Your task to perform on an android device: check storage Image 0: 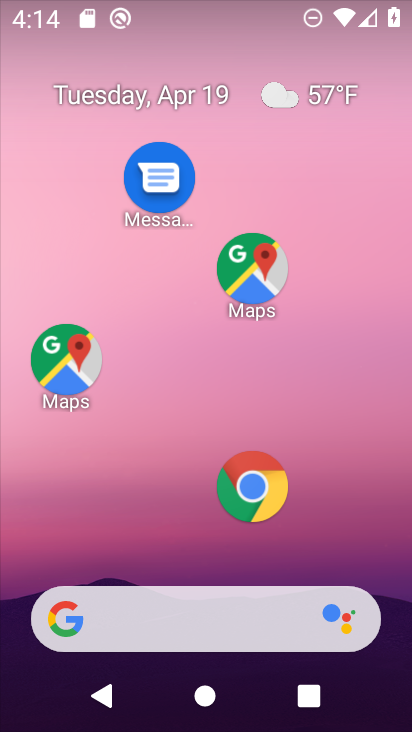
Step 0: drag from (300, 551) to (370, 135)
Your task to perform on an android device: check storage Image 1: 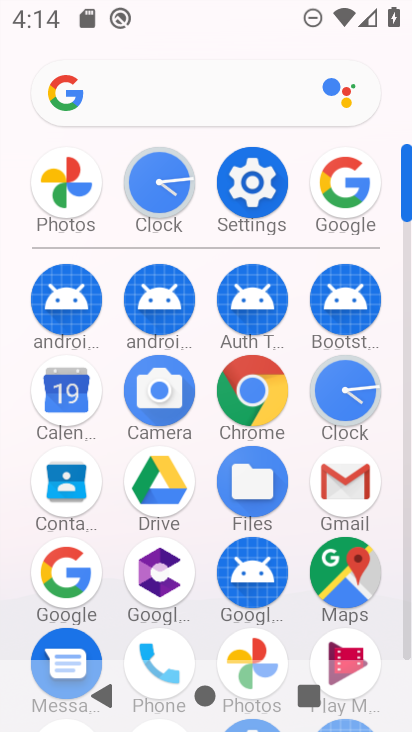
Step 1: click (265, 197)
Your task to perform on an android device: check storage Image 2: 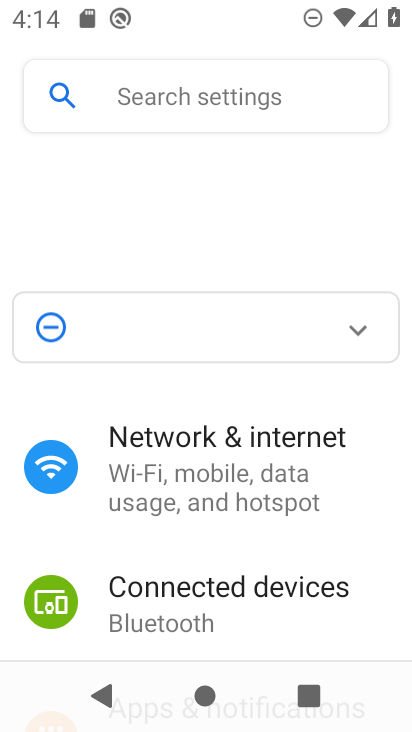
Step 2: click (263, 185)
Your task to perform on an android device: check storage Image 3: 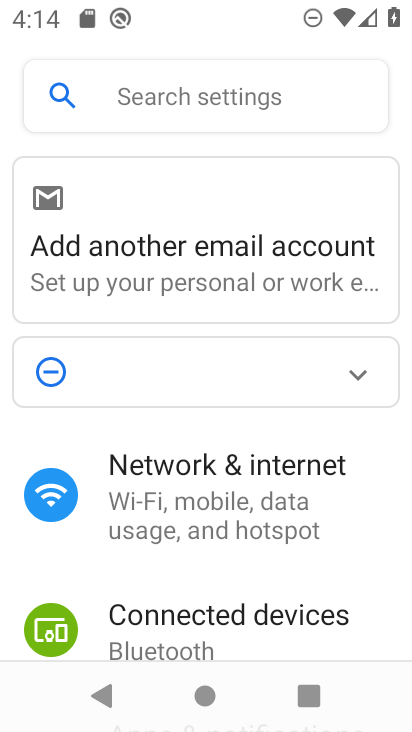
Step 3: drag from (247, 389) to (317, 146)
Your task to perform on an android device: check storage Image 4: 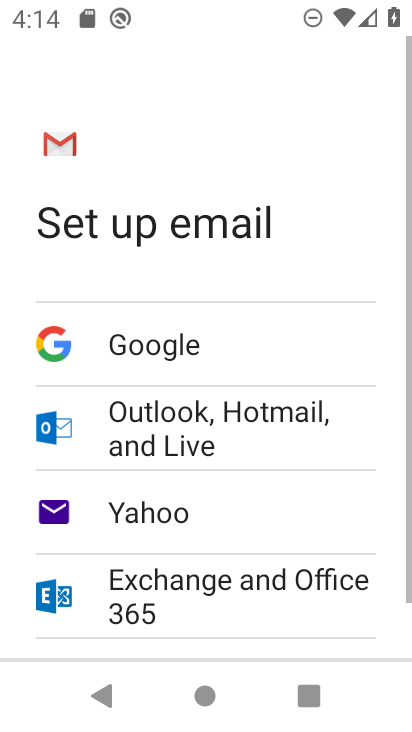
Step 4: press back button
Your task to perform on an android device: check storage Image 5: 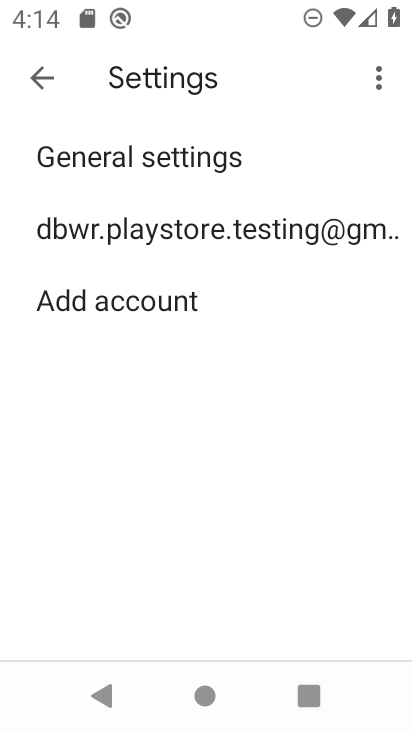
Step 5: press back button
Your task to perform on an android device: check storage Image 6: 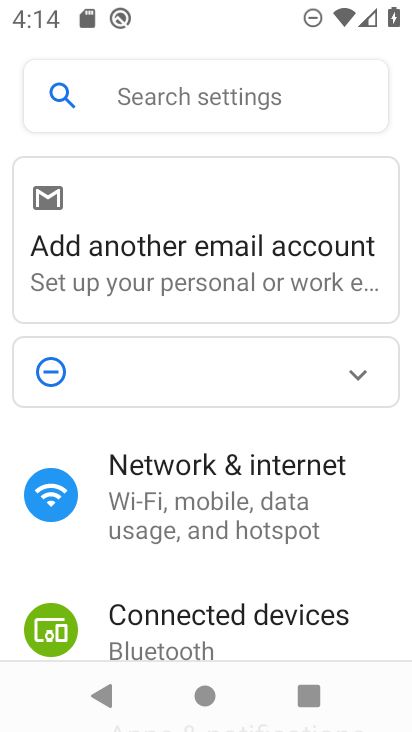
Step 6: drag from (268, 557) to (292, 141)
Your task to perform on an android device: check storage Image 7: 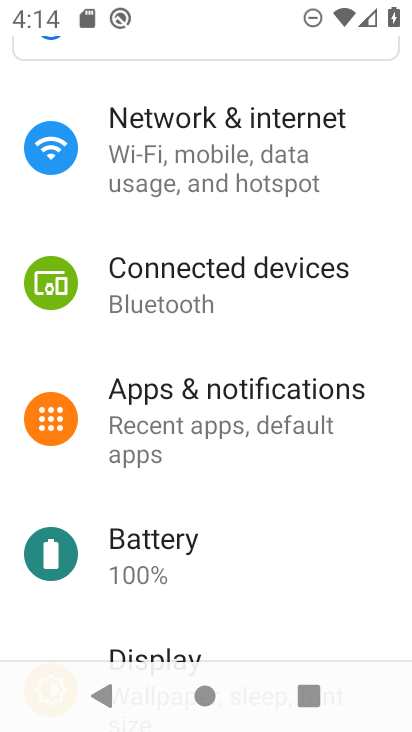
Step 7: drag from (215, 536) to (297, 175)
Your task to perform on an android device: check storage Image 8: 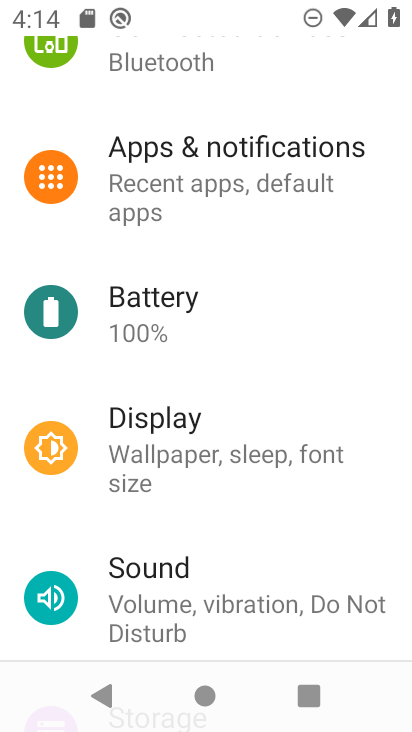
Step 8: drag from (251, 460) to (317, 201)
Your task to perform on an android device: check storage Image 9: 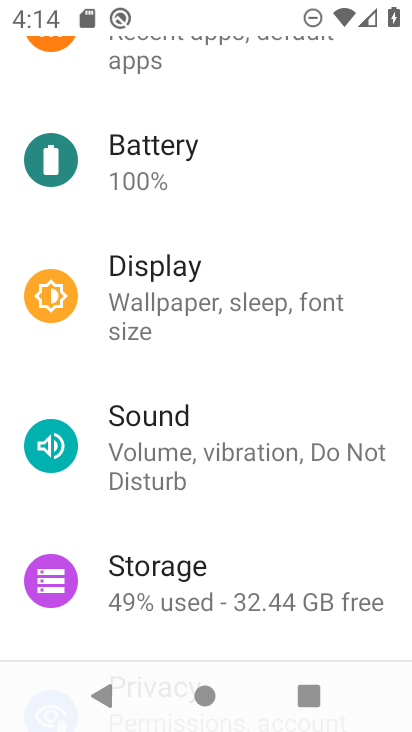
Step 9: click (238, 591)
Your task to perform on an android device: check storage Image 10: 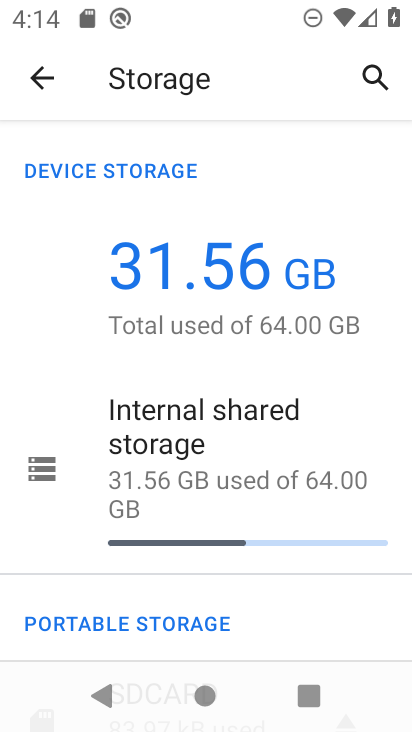
Step 10: click (232, 487)
Your task to perform on an android device: check storage Image 11: 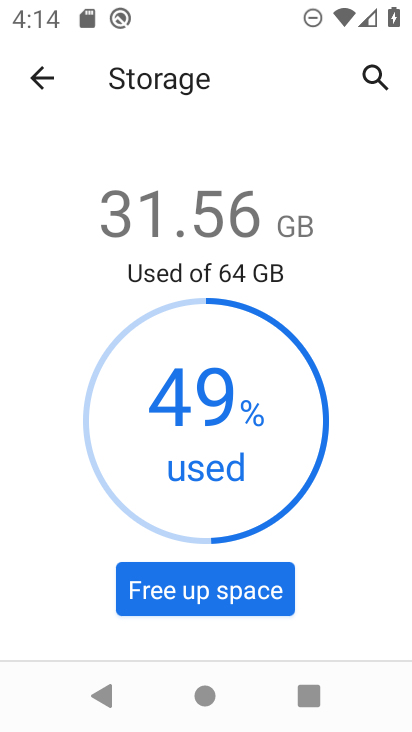
Step 11: task complete